Your task to perform on an android device: turn on notifications settings in the gmail app Image 0: 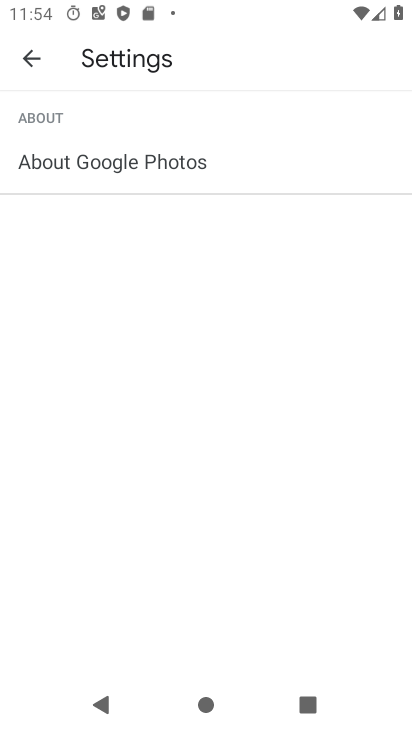
Step 0: press home button
Your task to perform on an android device: turn on notifications settings in the gmail app Image 1: 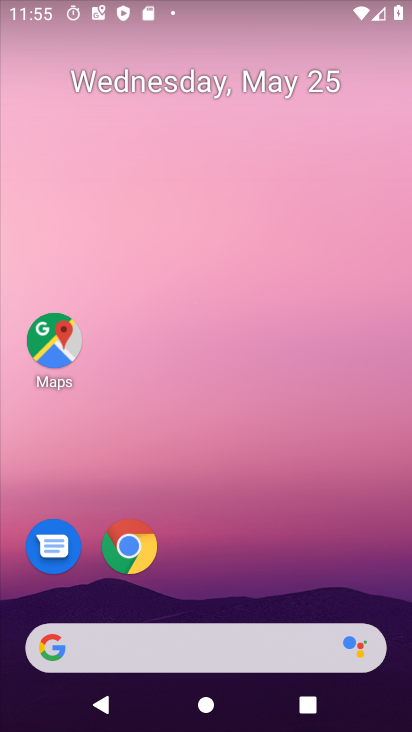
Step 1: drag from (205, 597) to (215, 15)
Your task to perform on an android device: turn on notifications settings in the gmail app Image 2: 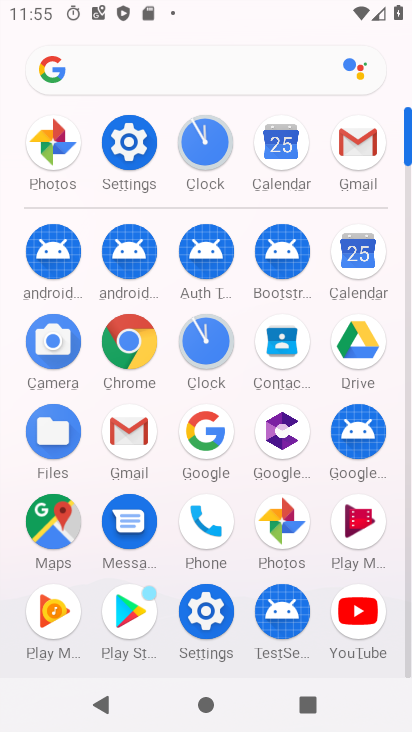
Step 2: click (126, 425)
Your task to perform on an android device: turn on notifications settings in the gmail app Image 3: 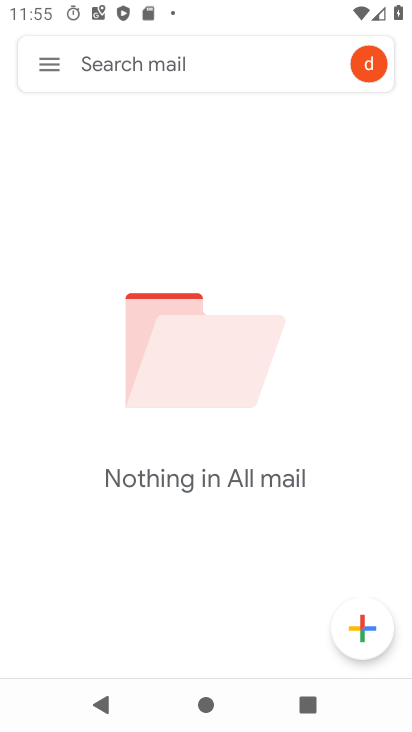
Step 3: click (49, 69)
Your task to perform on an android device: turn on notifications settings in the gmail app Image 4: 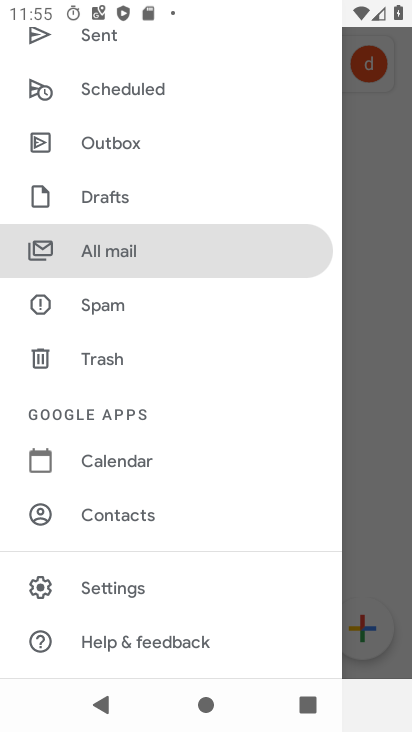
Step 4: click (136, 584)
Your task to perform on an android device: turn on notifications settings in the gmail app Image 5: 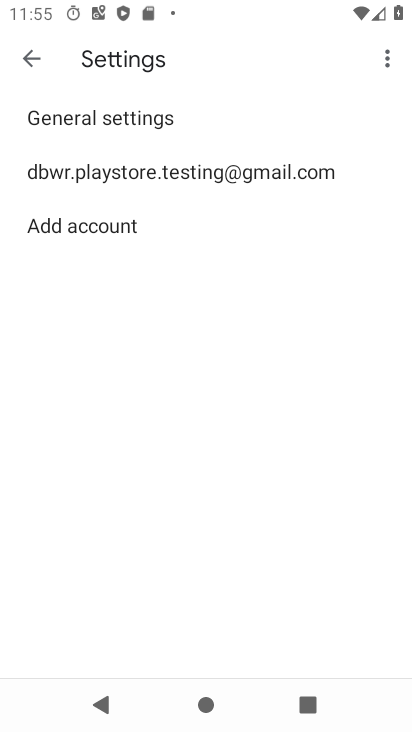
Step 5: click (165, 182)
Your task to perform on an android device: turn on notifications settings in the gmail app Image 6: 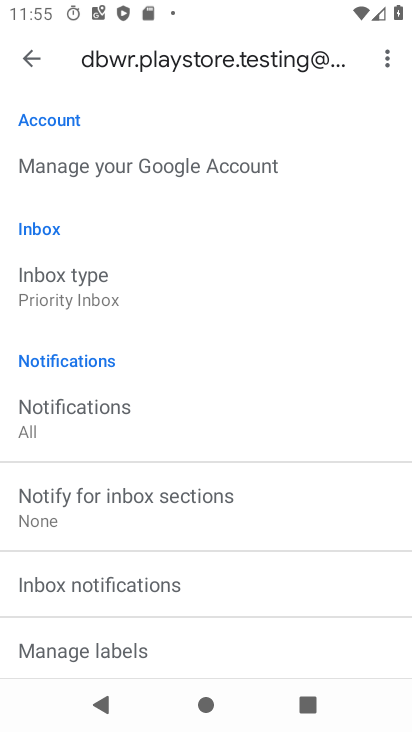
Step 6: drag from (166, 614) to (191, 379)
Your task to perform on an android device: turn on notifications settings in the gmail app Image 7: 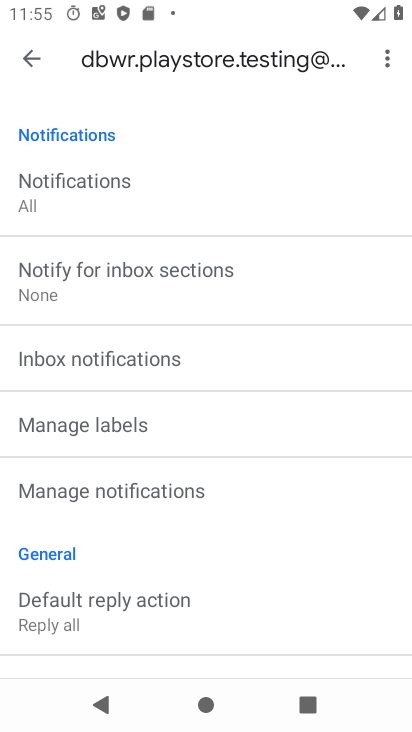
Step 7: click (150, 486)
Your task to perform on an android device: turn on notifications settings in the gmail app Image 8: 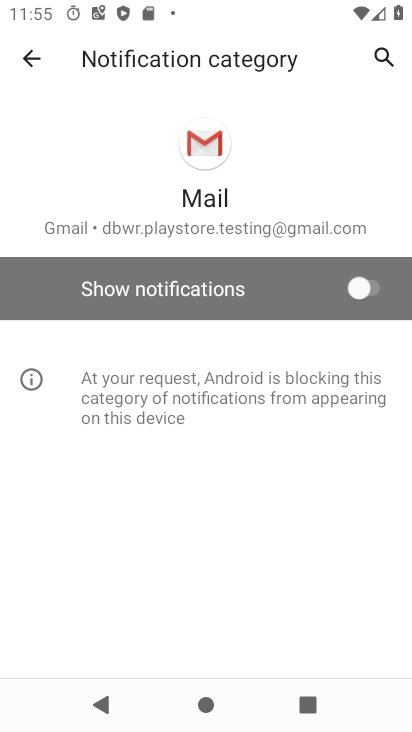
Step 8: click (366, 279)
Your task to perform on an android device: turn on notifications settings in the gmail app Image 9: 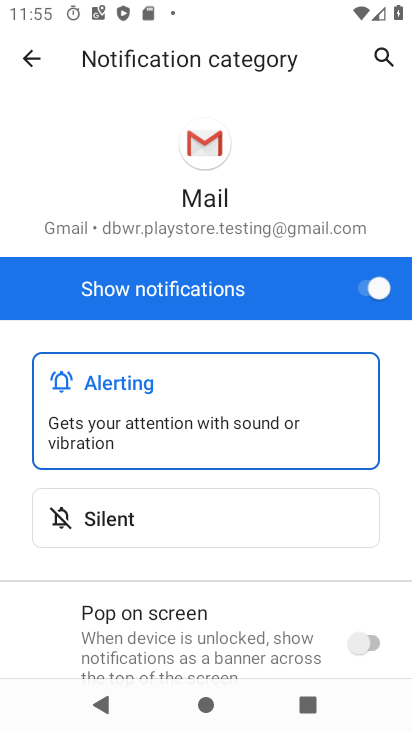
Step 9: task complete